Your task to perform on an android device: Go to notification settings Image 0: 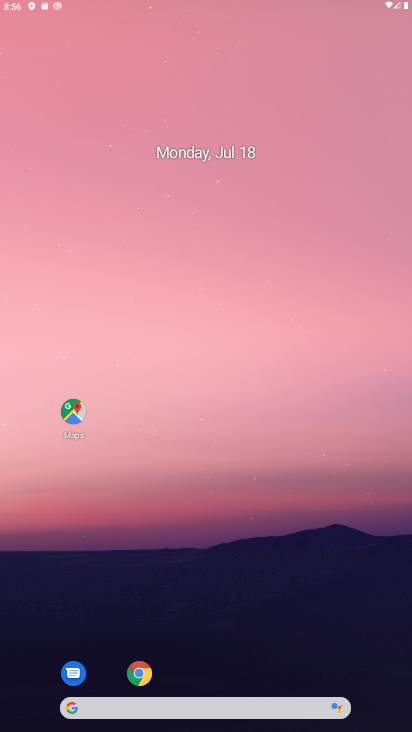
Step 0: drag from (36, 181) to (401, 591)
Your task to perform on an android device: Go to notification settings Image 1: 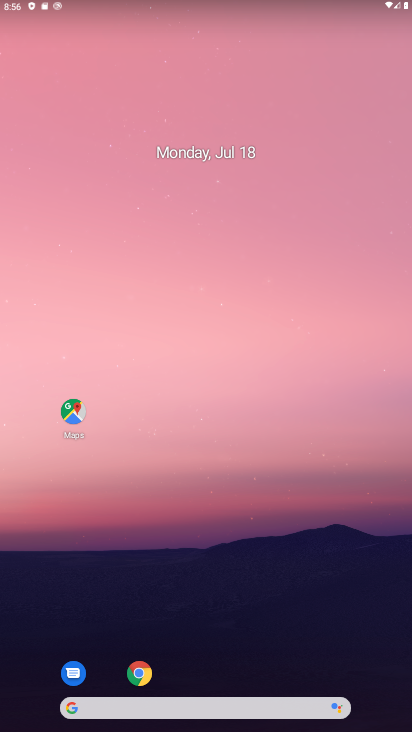
Step 1: drag from (219, 681) to (242, 236)
Your task to perform on an android device: Go to notification settings Image 2: 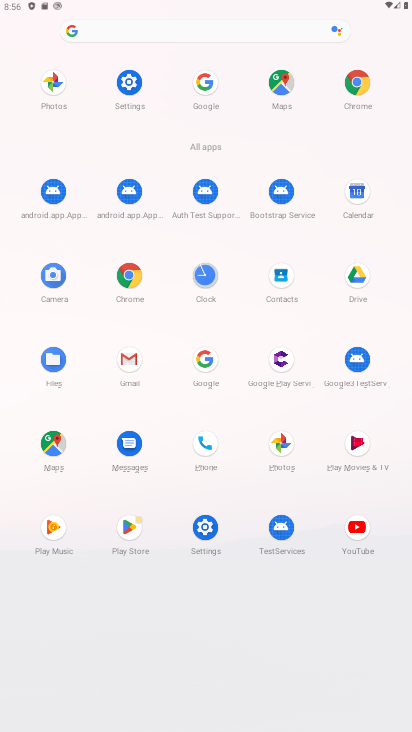
Step 2: click (208, 533)
Your task to perform on an android device: Go to notification settings Image 3: 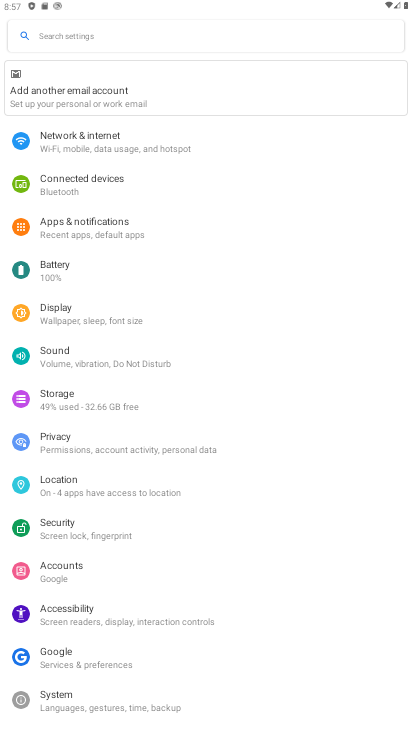
Step 3: click (109, 225)
Your task to perform on an android device: Go to notification settings Image 4: 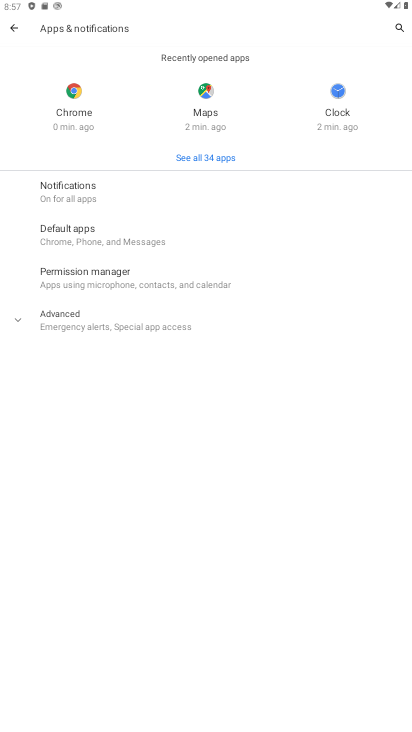
Step 4: click (101, 200)
Your task to perform on an android device: Go to notification settings Image 5: 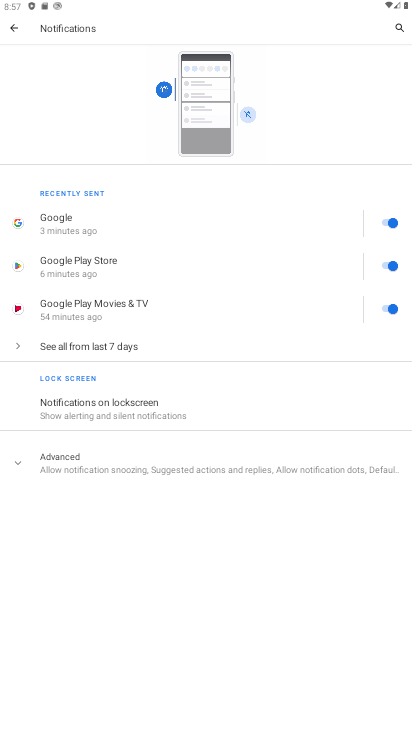
Step 5: task complete